Your task to perform on an android device: Open notification settings Image 0: 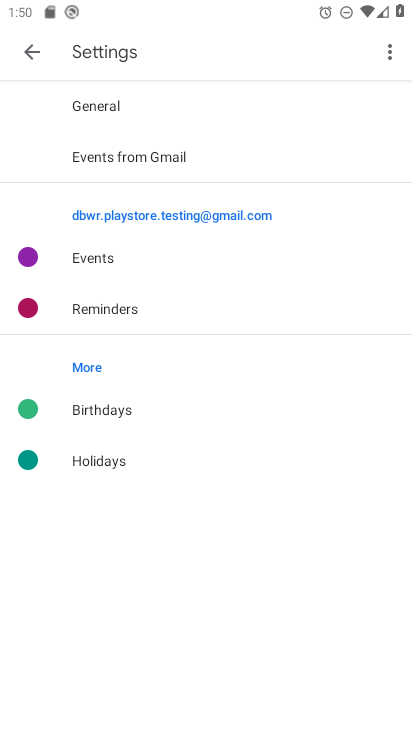
Step 0: press home button
Your task to perform on an android device: Open notification settings Image 1: 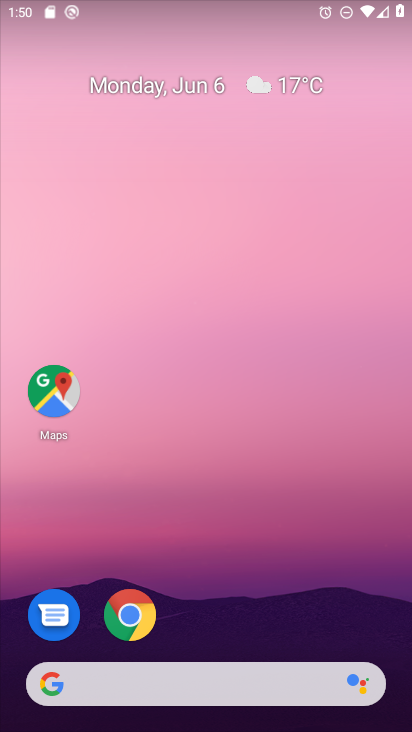
Step 1: drag from (260, 638) to (268, 27)
Your task to perform on an android device: Open notification settings Image 2: 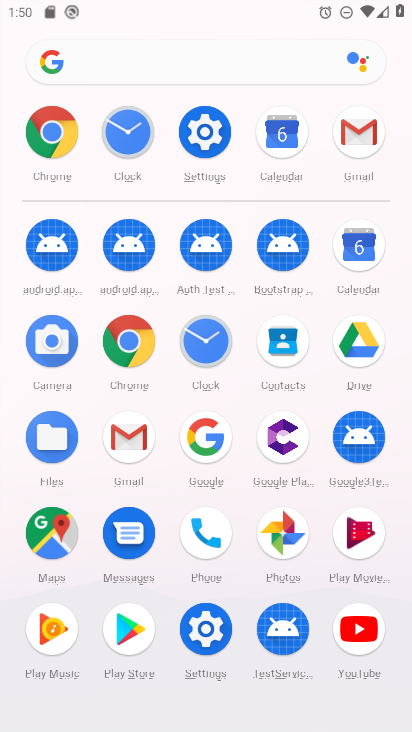
Step 2: click (221, 643)
Your task to perform on an android device: Open notification settings Image 3: 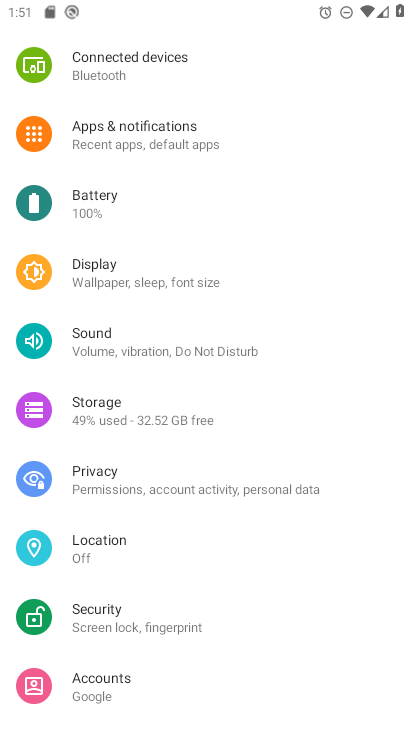
Step 3: click (145, 140)
Your task to perform on an android device: Open notification settings Image 4: 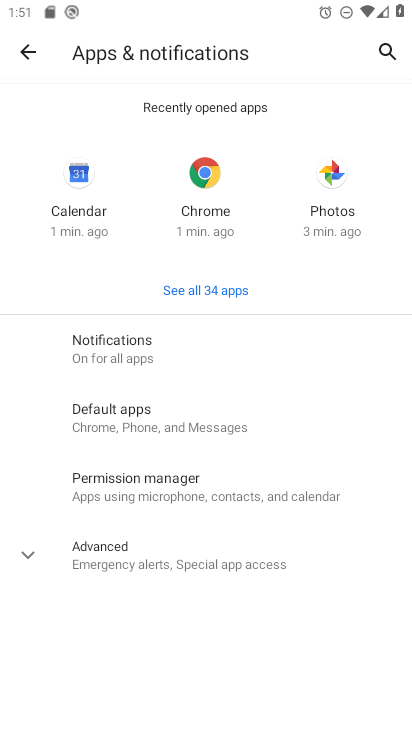
Step 4: click (209, 333)
Your task to perform on an android device: Open notification settings Image 5: 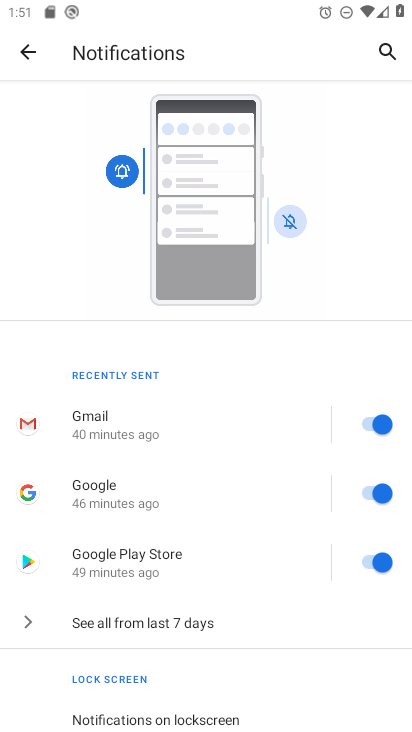
Step 5: task complete